Your task to perform on an android device: open sync settings in chrome Image 0: 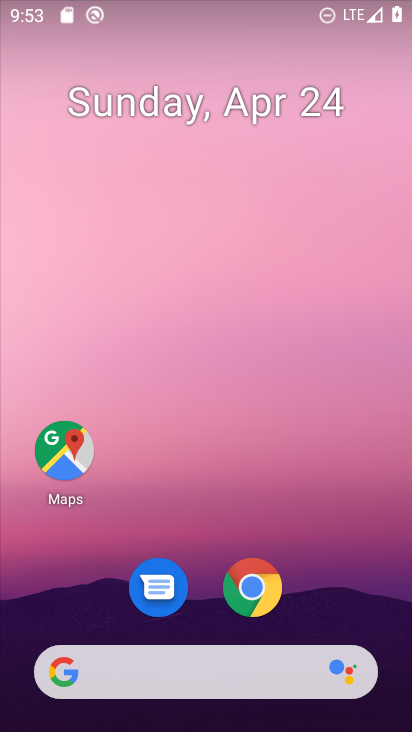
Step 0: drag from (356, 584) to (321, 114)
Your task to perform on an android device: open sync settings in chrome Image 1: 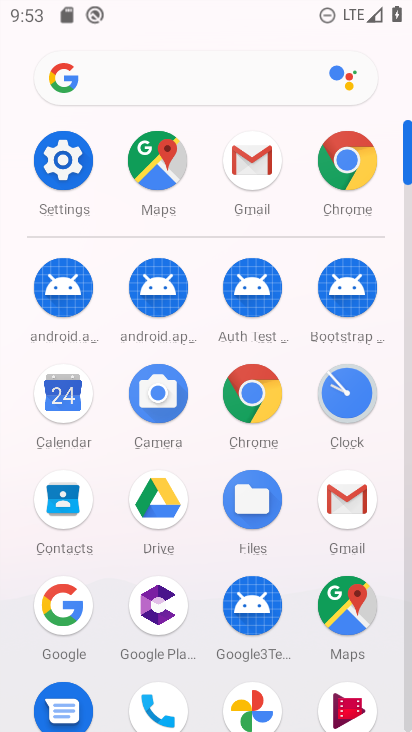
Step 1: click (264, 395)
Your task to perform on an android device: open sync settings in chrome Image 2: 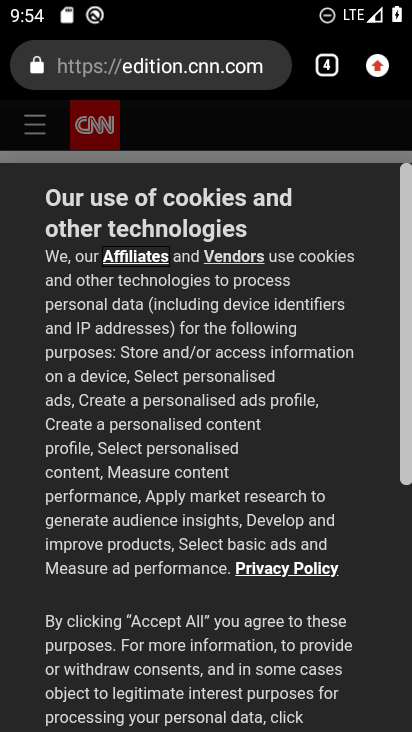
Step 2: drag from (385, 77) to (189, 640)
Your task to perform on an android device: open sync settings in chrome Image 3: 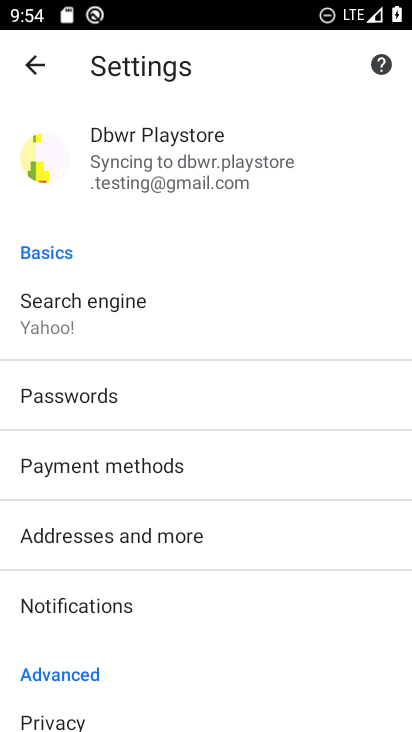
Step 3: drag from (304, 612) to (318, 259)
Your task to perform on an android device: open sync settings in chrome Image 4: 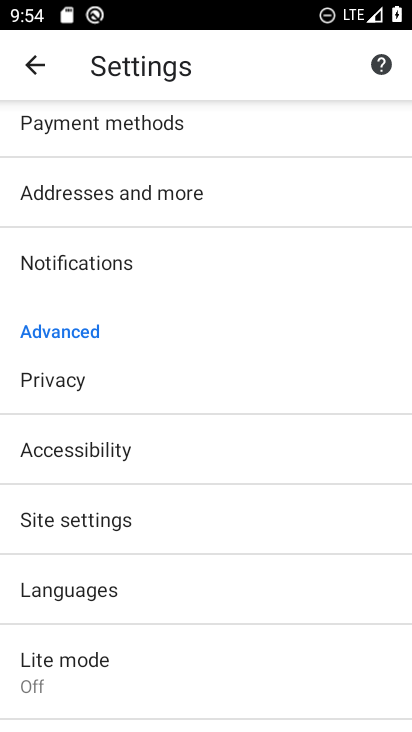
Step 4: click (153, 532)
Your task to perform on an android device: open sync settings in chrome Image 5: 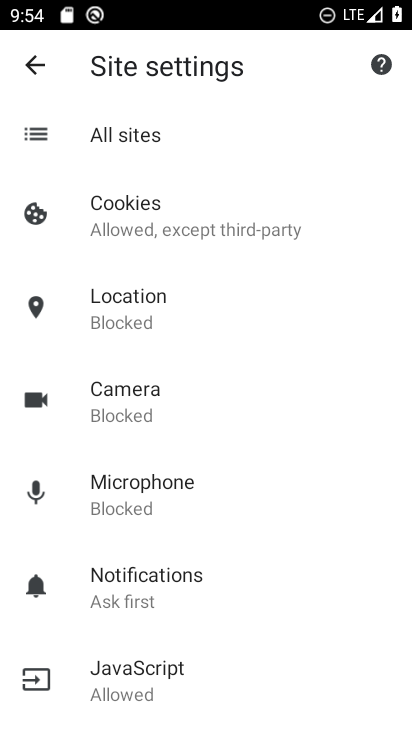
Step 5: drag from (222, 638) to (223, 285)
Your task to perform on an android device: open sync settings in chrome Image 6: 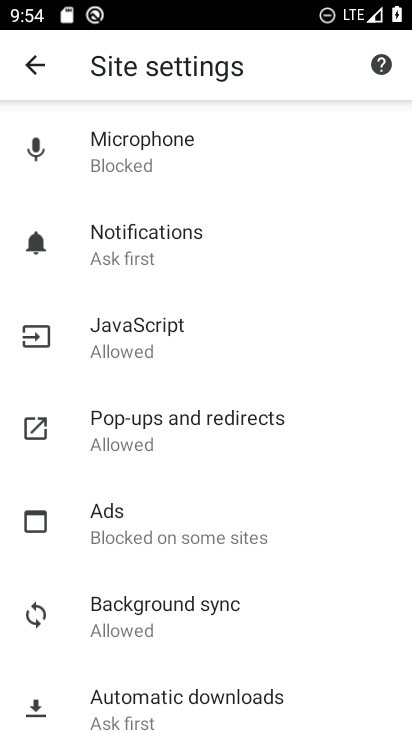
Step 6: click (190, 603)
Your task to perform on an android device: open sync settings in chrome Image 7: 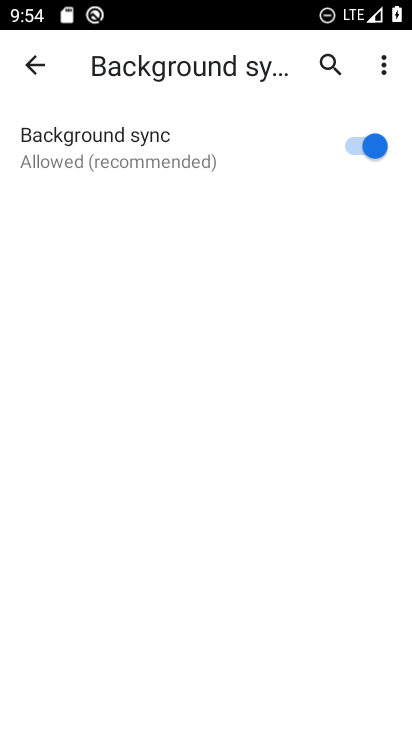
Step 7: task complete